Your task to perform on an android device: Show me popular games on the Play Store Image 0: 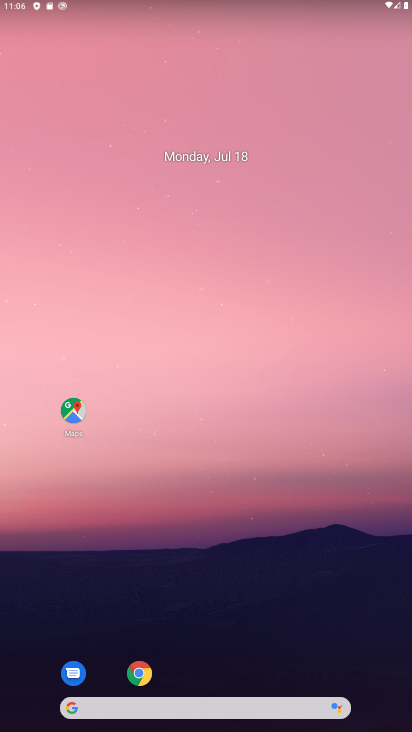
Step 0: press home button
Your task to perform on an android device: Show me popular games on the Play Store Image 1: 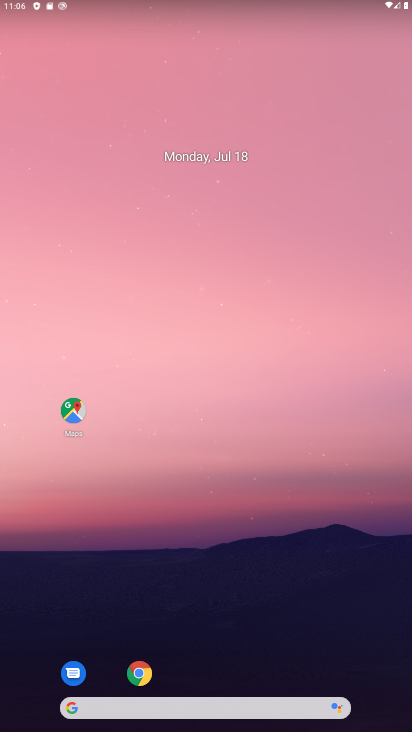
Step 1: drag from (216, 667) to (220, 4)
Your task to perform on an android device: Show me popular games on the Play Store Image 2: 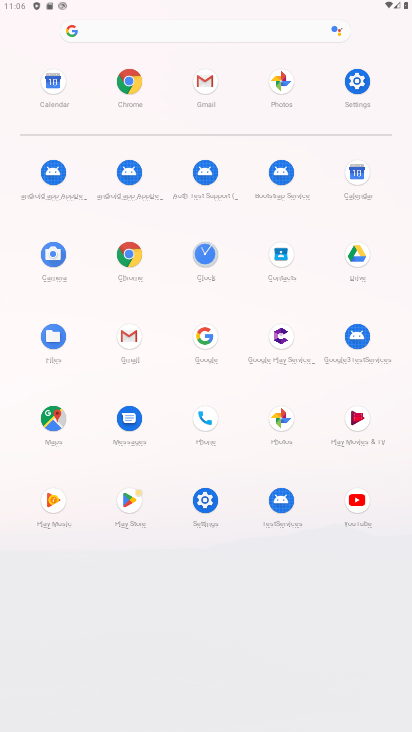
Step 2: click (125, 495)
Your task to perform on an android device: Show me popular games on the Play Store Image 3: 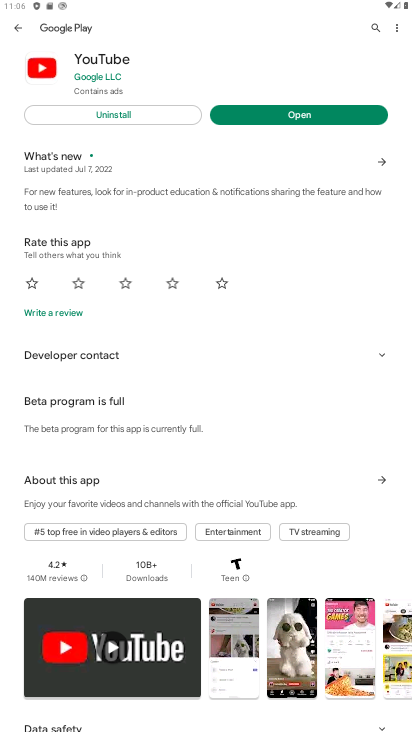
Step 3: click (16, 31)
Your task to perform on an android device: Show me popular games on the Play Store Image 4: 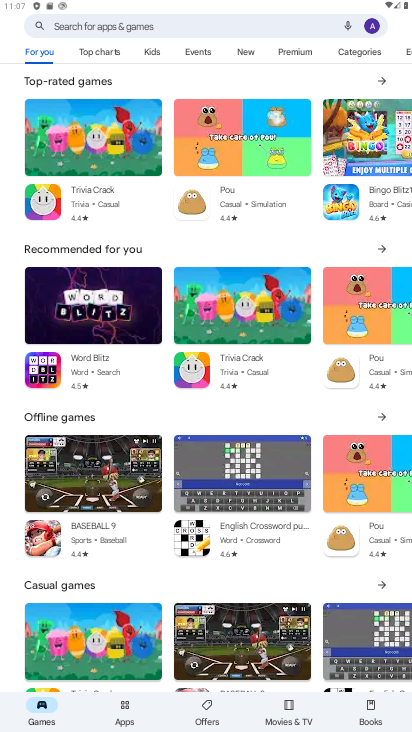
Step 4: task complete